Your task to perform on an android device: turn on javascript in the chrome app Image 0: 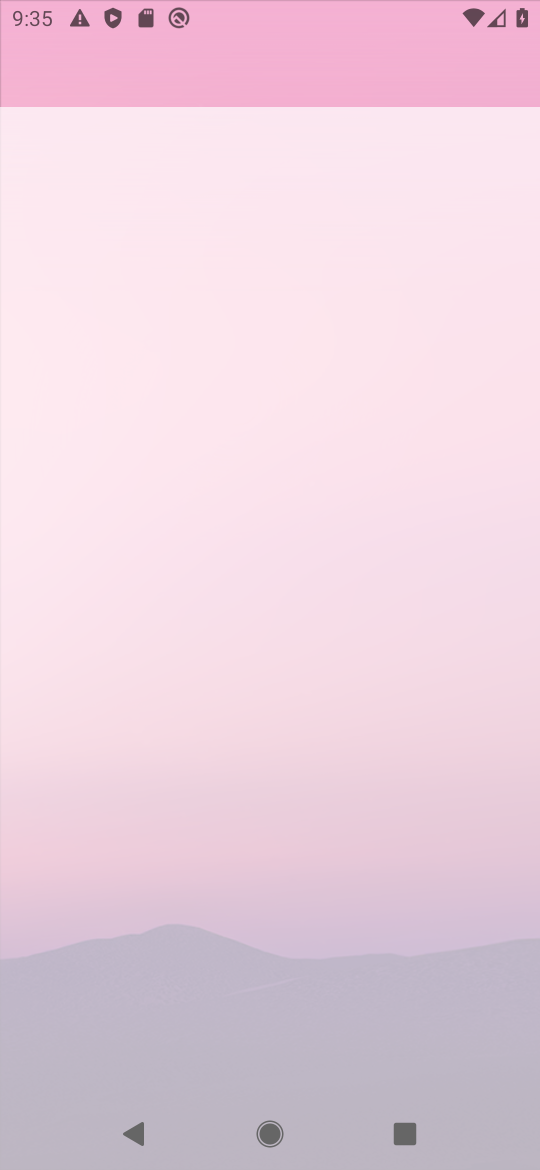
Step 0: press home button
Your task to perform on an android device: turn on javascript in the chrome app Image 1: 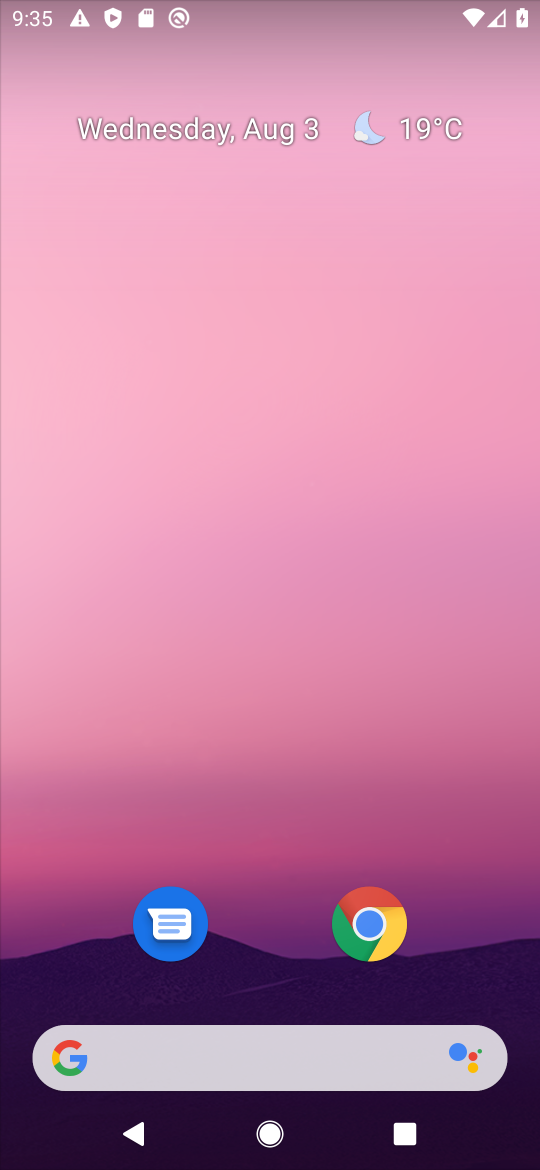
Step 1: drag from (424, 950) to (423, 190)
Your task to perform on an android device: turn on javascript in the chrome app Image 2: 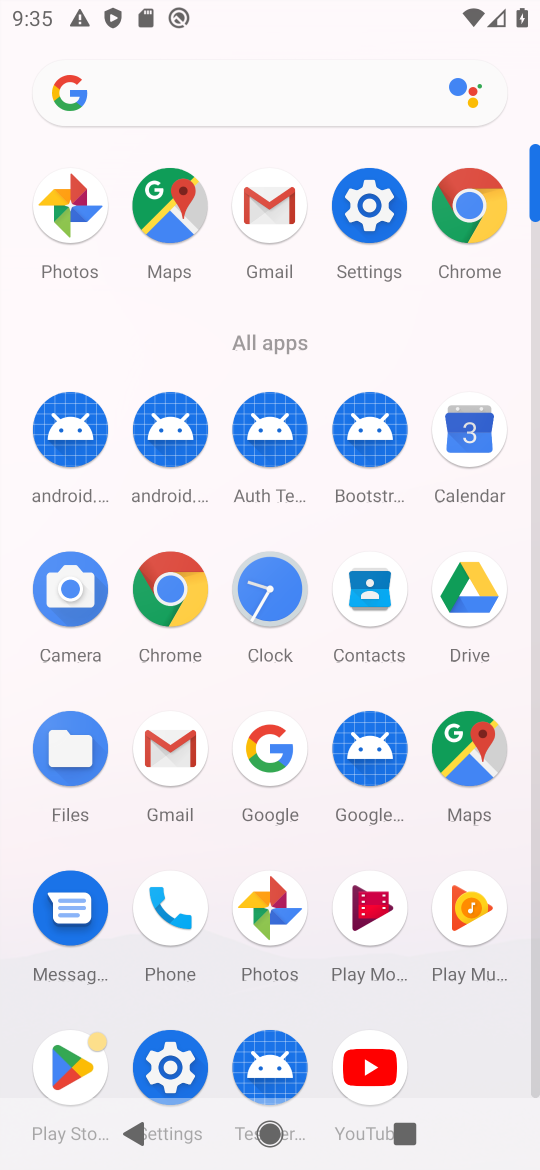
Step 2: click (467, 202)
Your task to perform on an android device: turn on javascript in the chrome app Image 3: 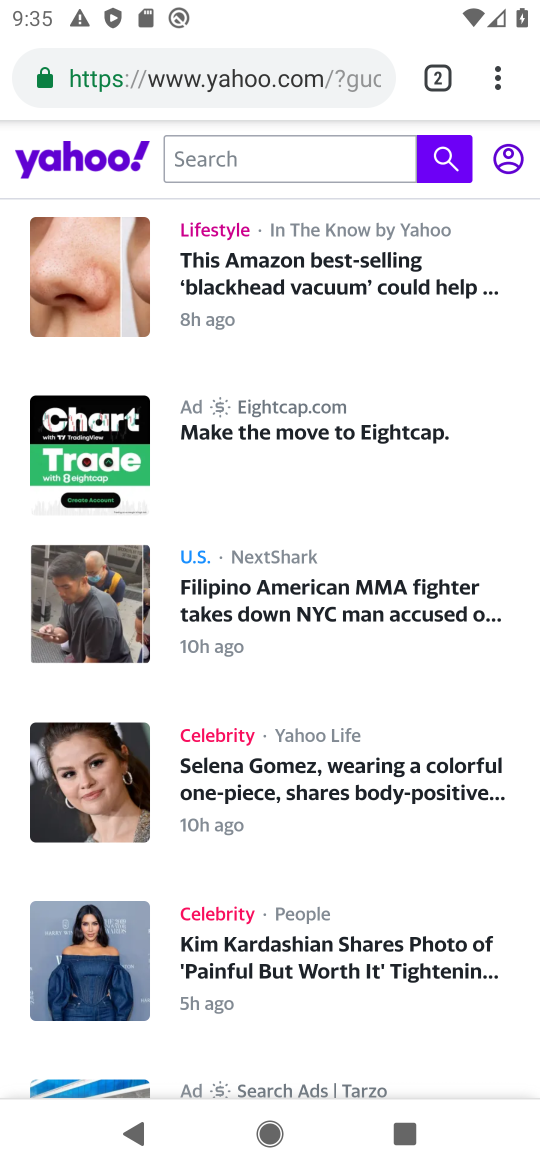
Step 3: click (499, 71)
Your task to perform on an android device: turn on javascript in the chrome app Image 4: 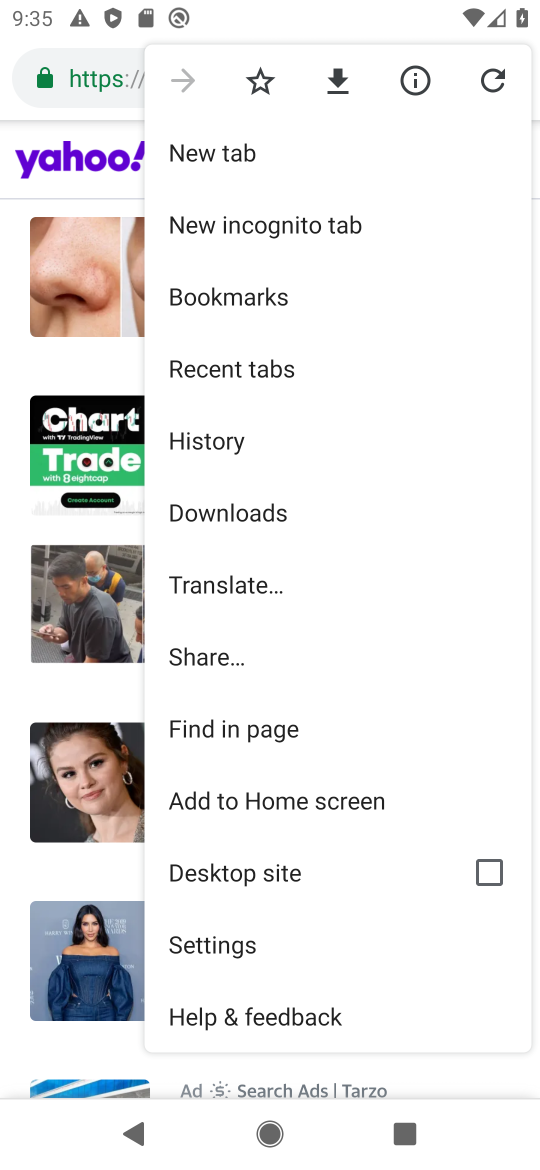
Step 4: click (269, 940)
Your task to perform on an android device: turn on javascript in the chrome app Image 5: 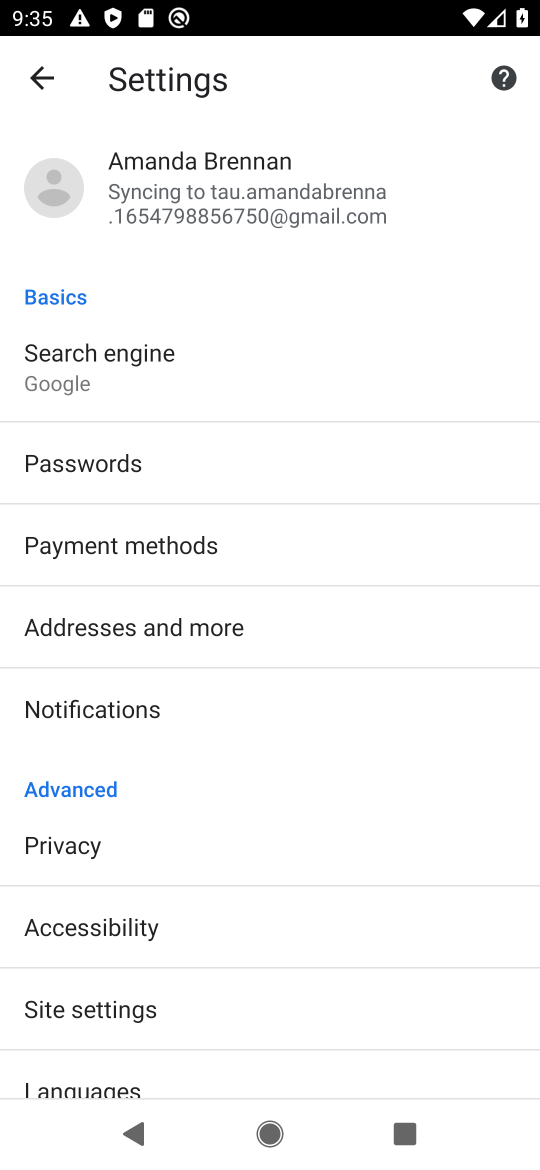
Step 5: click (214, 1007)
Your task to perform on an android device: turn on javascript in the chrome app Image 6: 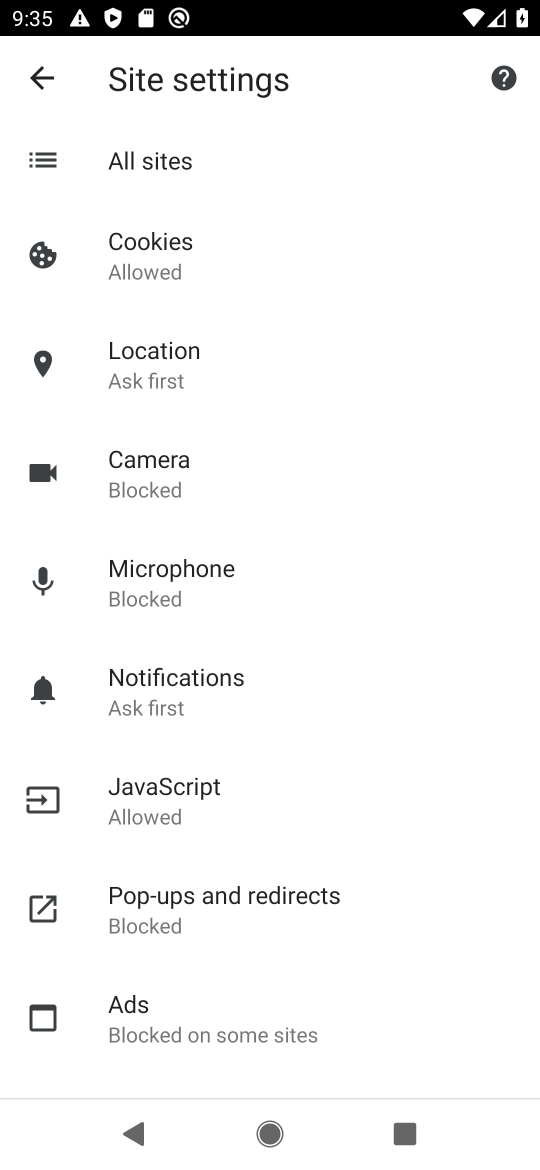
Step 6: click (217, 797)
Your task to perform on an android device: turn on javascript in the chrome app Image 7: 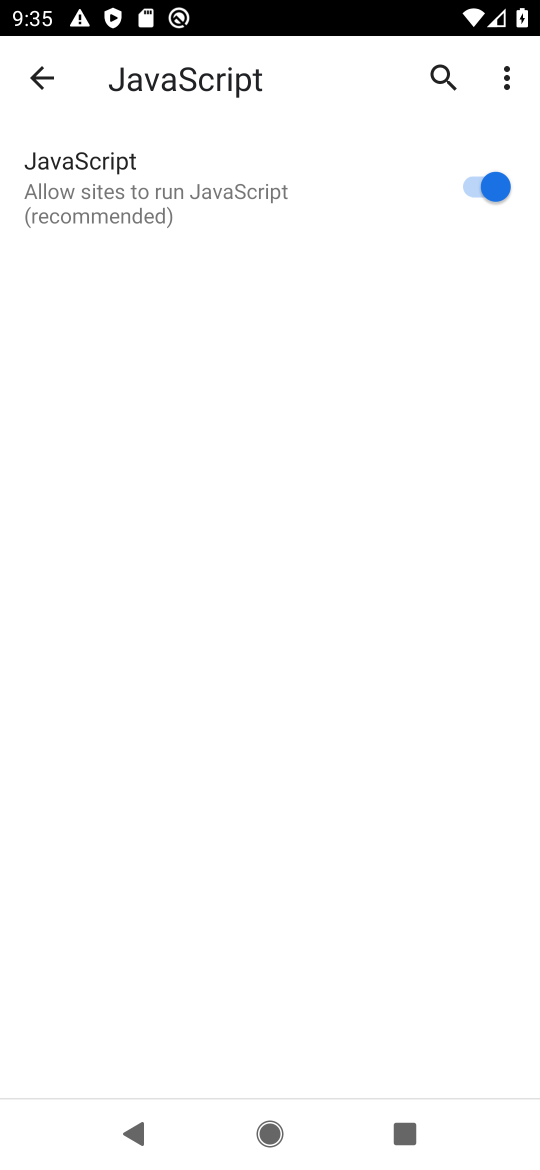
Step 7: task complete